Your task to perform on an android device: toggle location history Image 0: 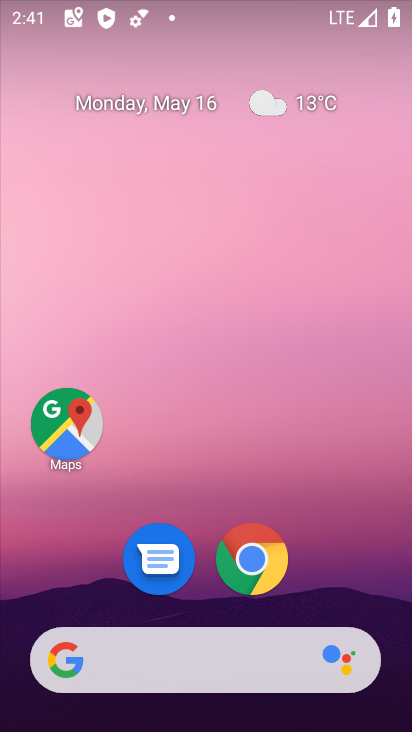
Step 0: drag from (206, 531) to (274, 59)
Your task to perform on an android device: toggle location history Image 1: 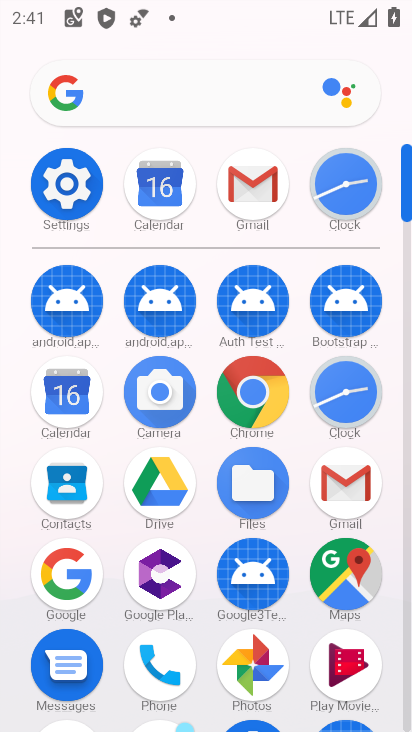
Step 1: click (75, 173)
Your task to perform on an android device: toggle location history Image 2: 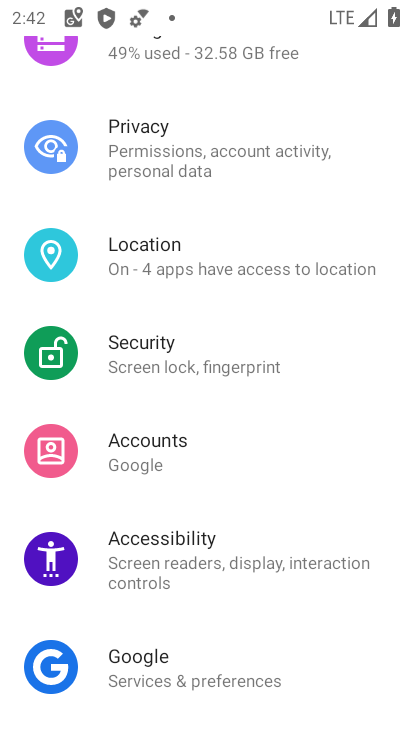
Step 2: click (131, 259)
Your task to perform on an android device: toggle location history Image 3: 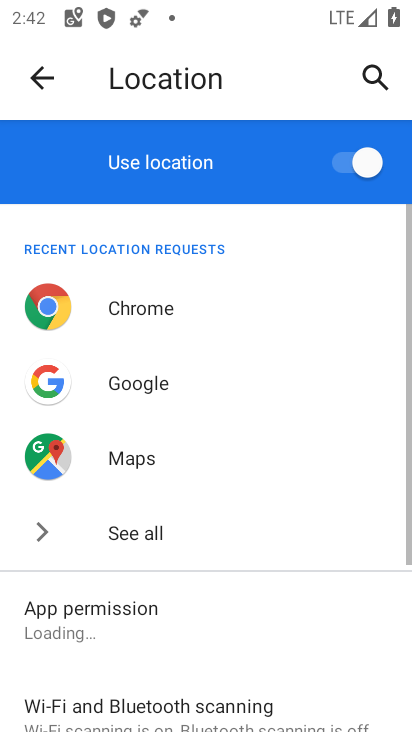
Step 3: drag from (152, 616) to (244, 135)
Your task to perform on an android device: toggle location history Image 4: 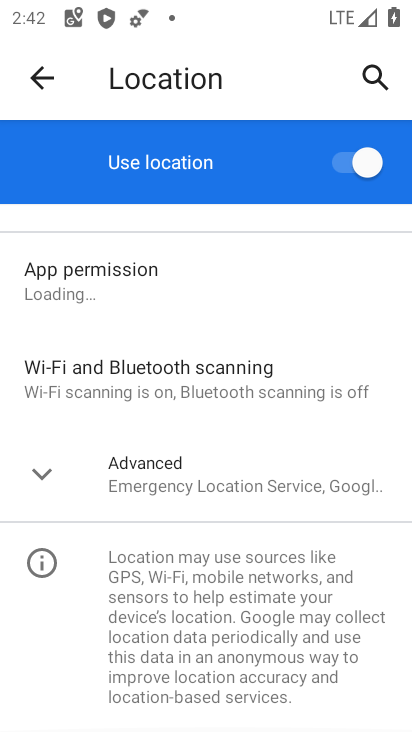
Step 4: click (199, 485)
Your task to perform on an android device: toggle location history Image 5: 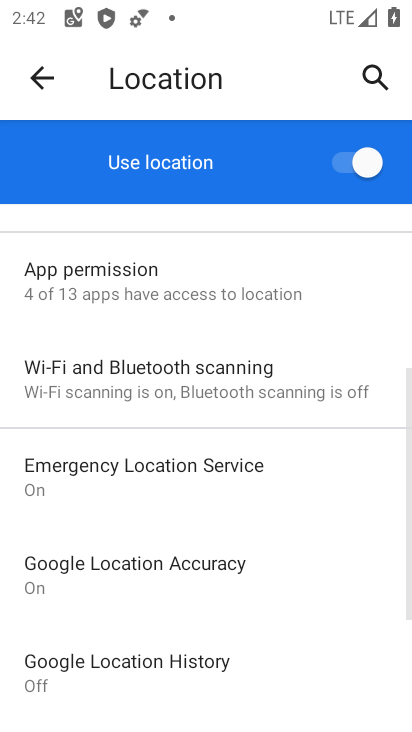
Step 5: click (154, 669)
Your task to perform on an android device: toggle location history Image 6: 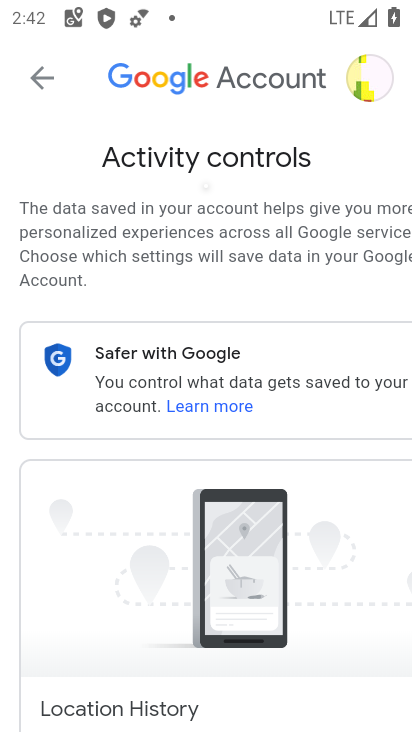
Step 6: drag from (162, 686) to (172, 204)
Your task to perform on an android device: toggle location history Image 7: 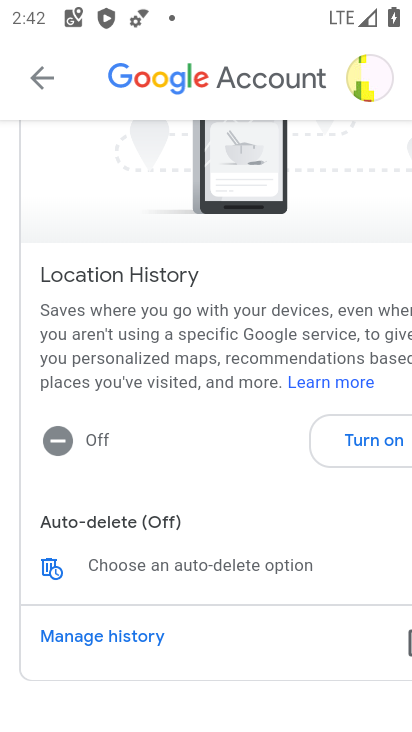
Step 7: click (347, 431)
Your task to perform on an android device: toggle location history Image 8: 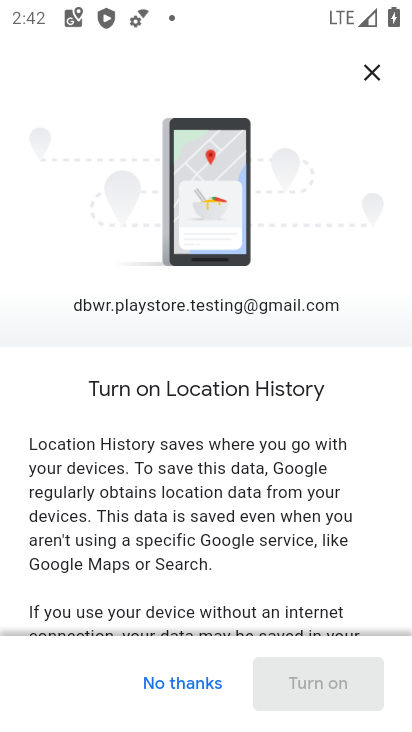
Step 8: drag from (236, 615) to (257, 100)
Your task to perform on an android device: toggle location history Image 9: 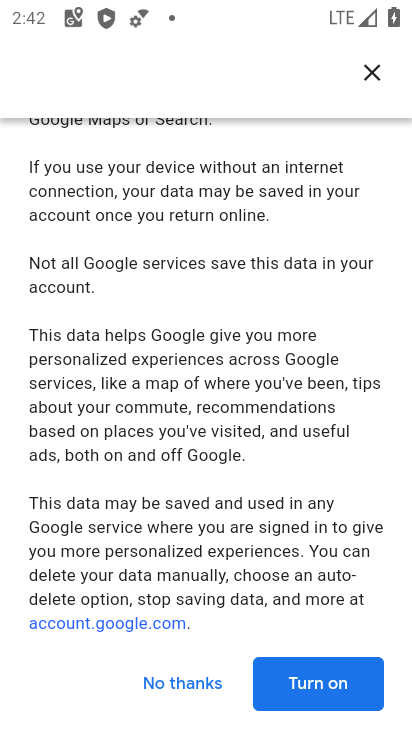
Step 9: drag from (222, 659) to (220, 244)
Your task to perform on an android device: toggle location history Image 10: 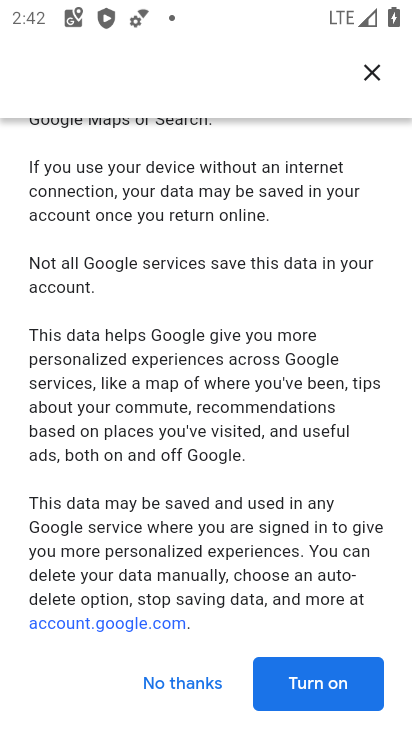
Step 10: click (318, 686)
Your task to perform on an android device: toggle location history Image 11: 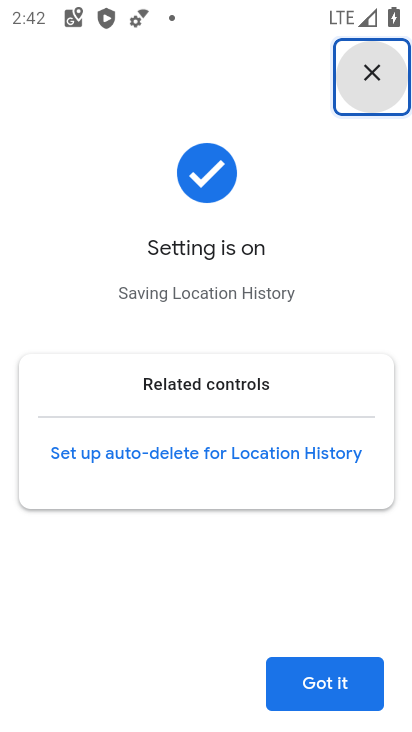
Step 11: click (320, 683)
Your task to perform on an android device: toggle location history Image 12: 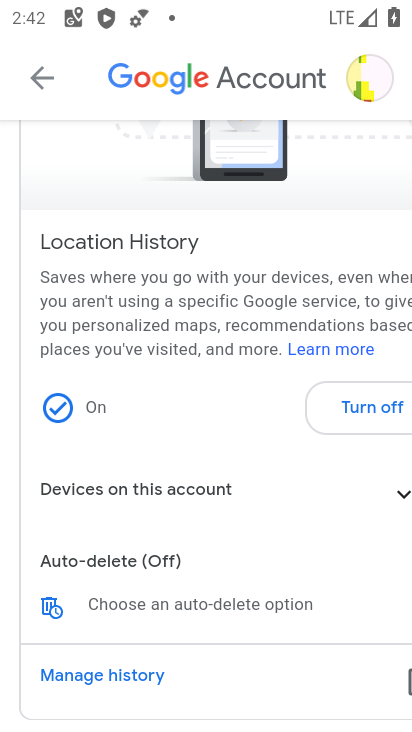
Step 12: task complete